Your task to perform on an android device: set the timer Image 0: 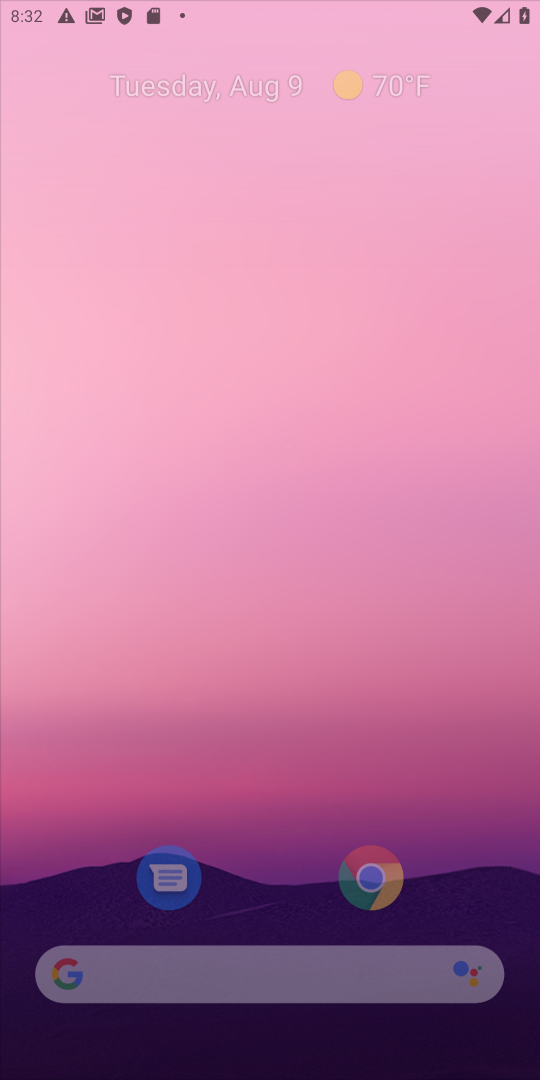
Step 0: click (354, 896)
Your task to perform on an android device: set the timer Image 1: 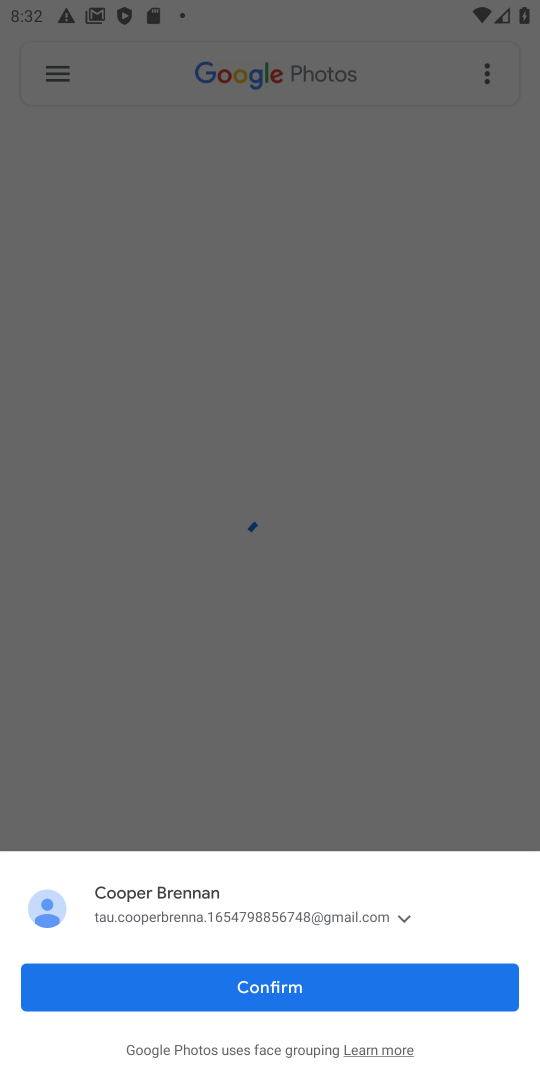
Step 1: press home button
Your task to perform on an android device: set the timer Image 2: 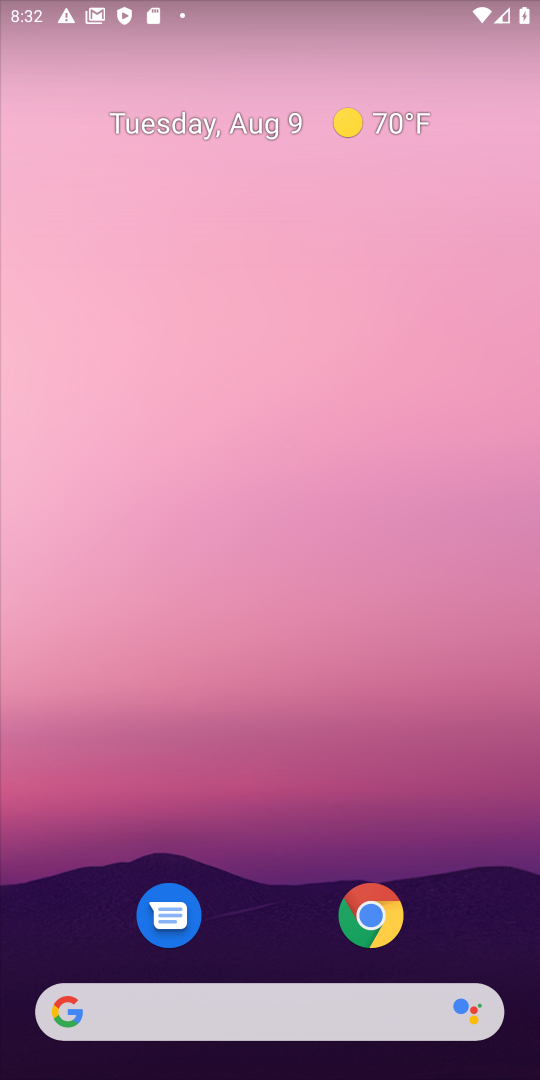
Step 2: drag from (228, 940) to (202, 48)
Your task to perform on an android device: set the timer Image 3: 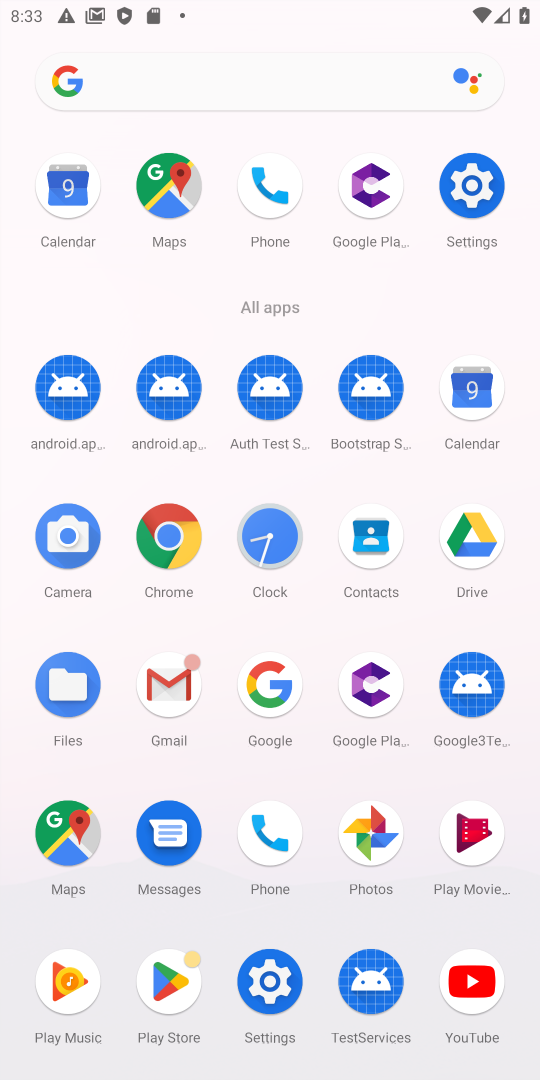
Step 3: click (274, 551)
Your task to perform on an android device: set the timer Image 4: 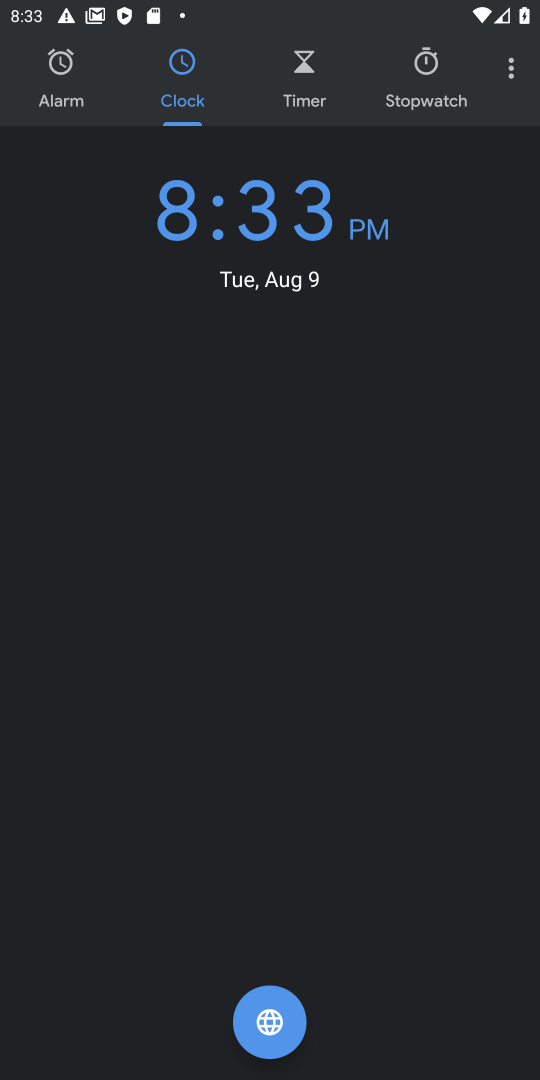
Step 4: click (311, 80)
Your task to perform on an android device: set the timer Image 5: 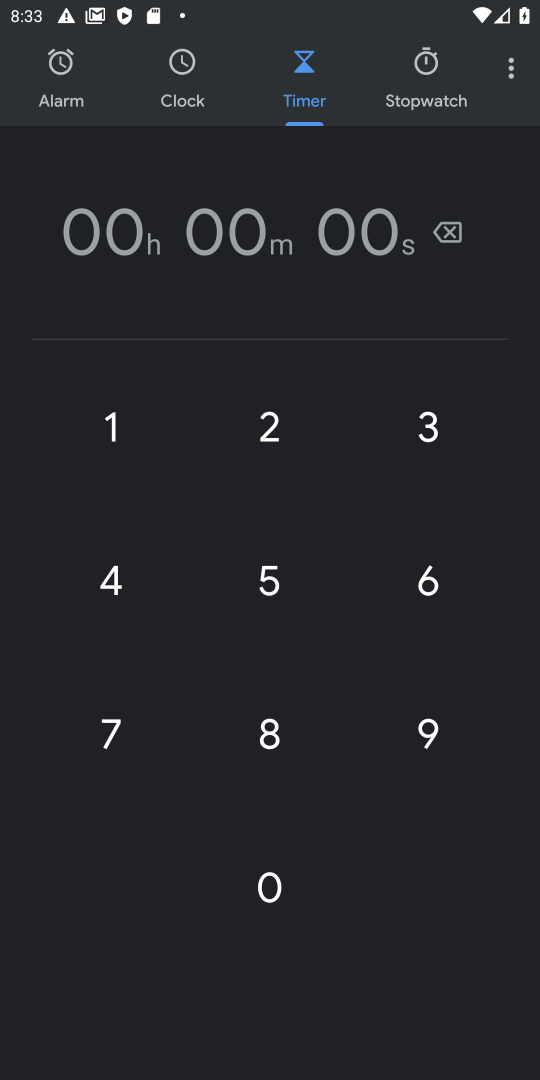
Step 5: click (267, 424)
Your task to perform on an android device: set the timer Image 6: 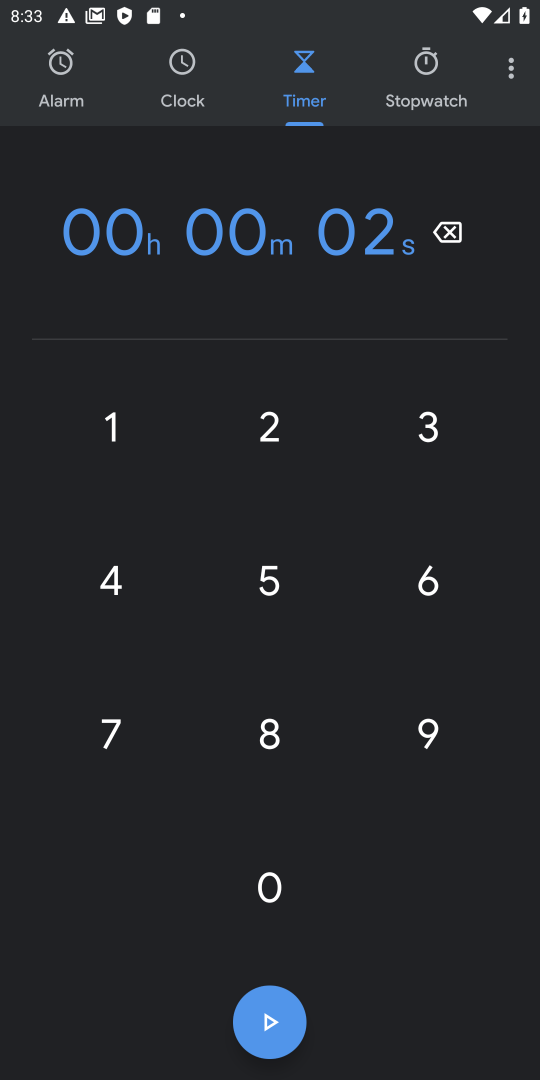
Step 6: click (268, 880)
Your task to perform on an android device: set the timer Image 7: 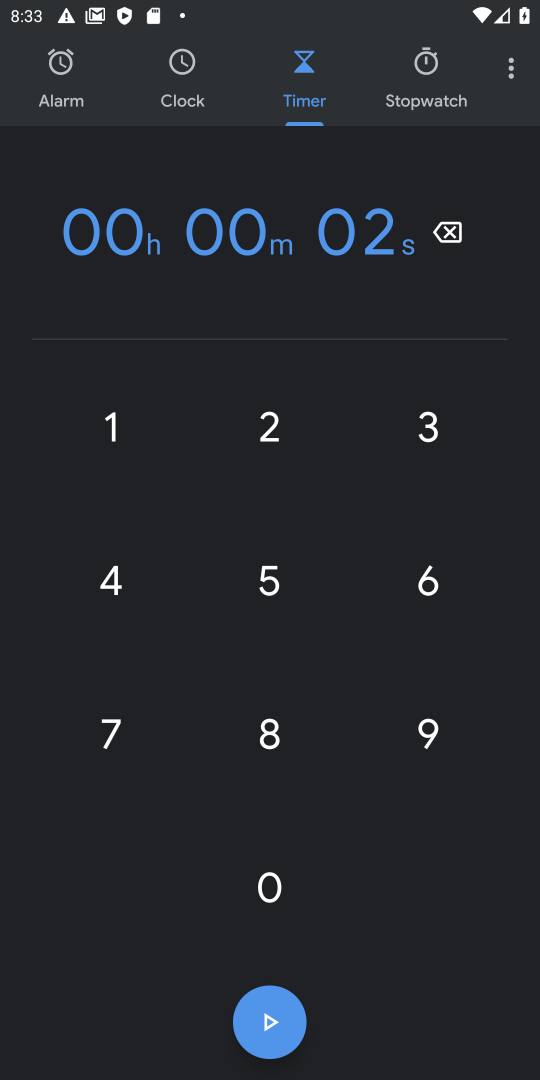
Step 7: click (268, 880)
Your task to perform on an android device: set the timer Image 8: 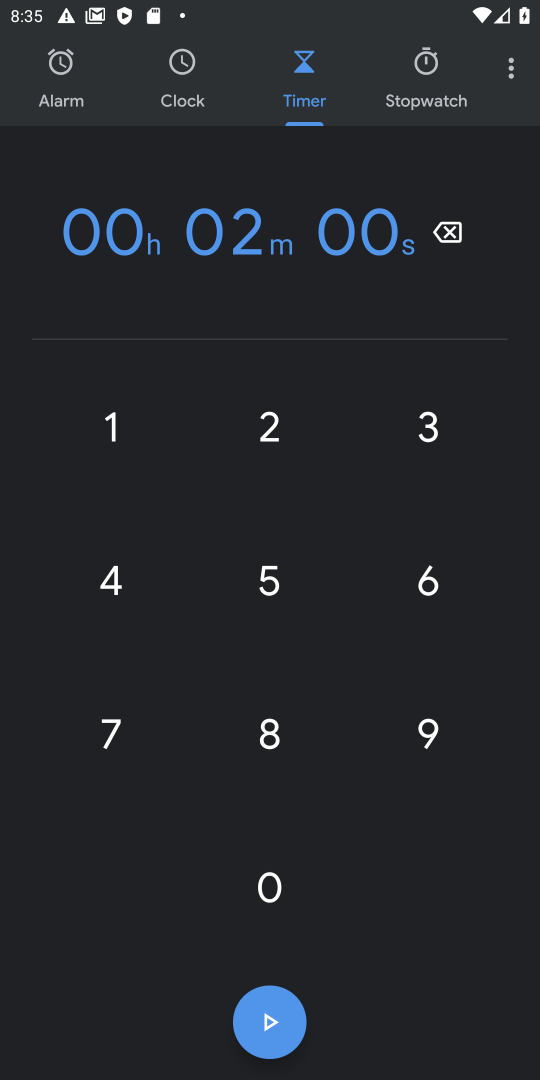
Step 8: task complete